Your task to perform on an android device: allow notifications from all sites in the chrome app Image 0: 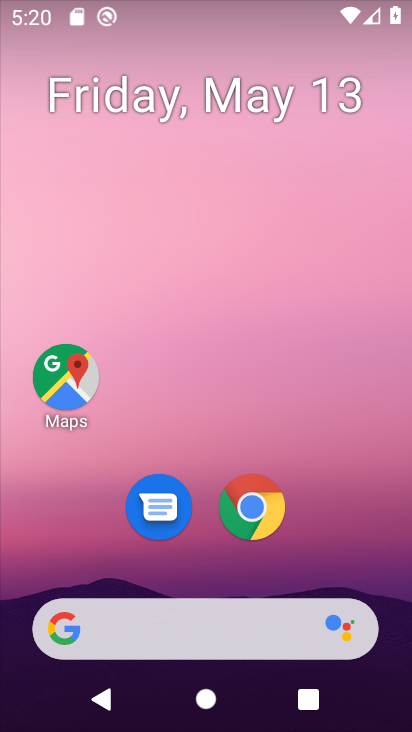
Step 0: drag from (327, 514) to (246, 61)
Your task to perform on an android device: allow notifications from all sites in the chrome app Image 1: 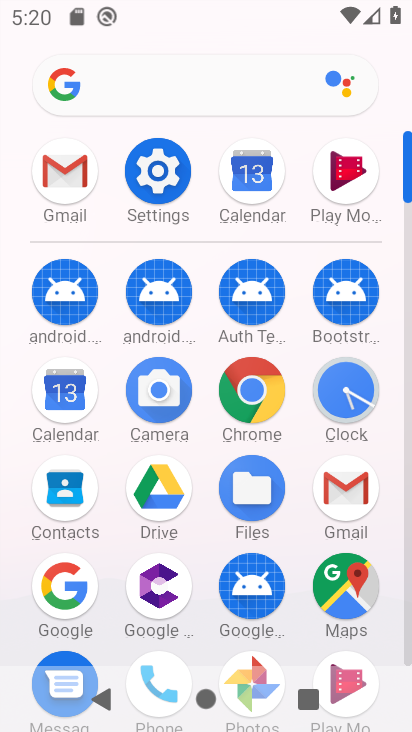
Step 1: click (253, 400)
Your task to perform on an android device: allow notifications from all sites in the chrome app Image 2: 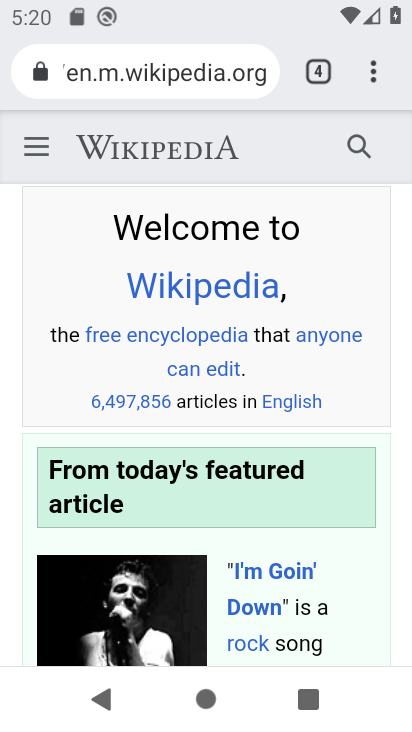
Step 2: click (371, 72)
Your task to perform on an android device: allow notifications from all sites in the chrome app Image 3: 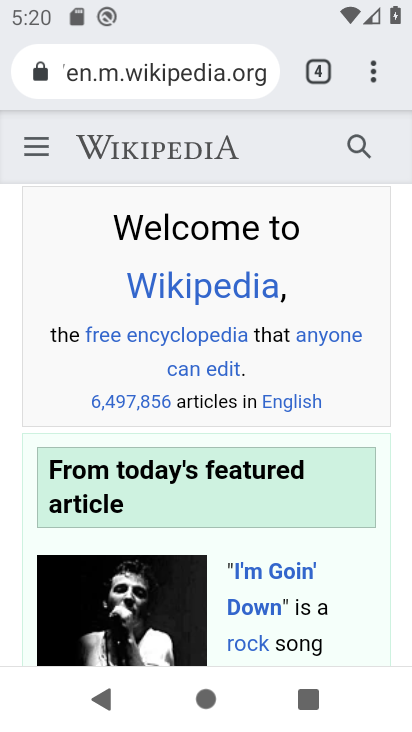
Step 3: click (376, 68)
Your task to perform on an android device: allow notifications from all sites in the chrome app Image 4: 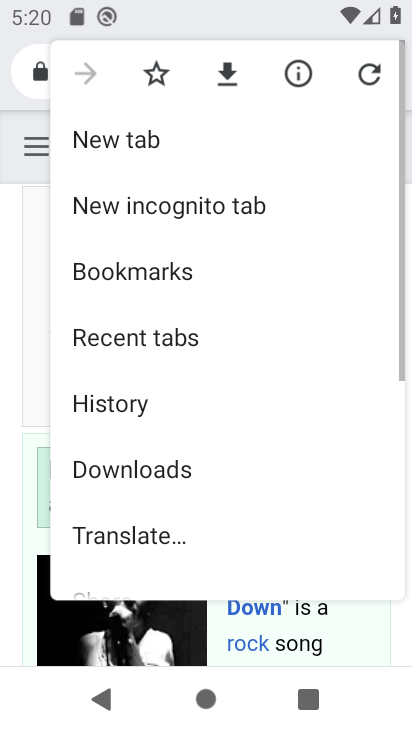
Step 4: drag from (239, 492) to (229, 73)
Your task to perform on an android device: allow notifications from all sites in the chrome app Image 5: 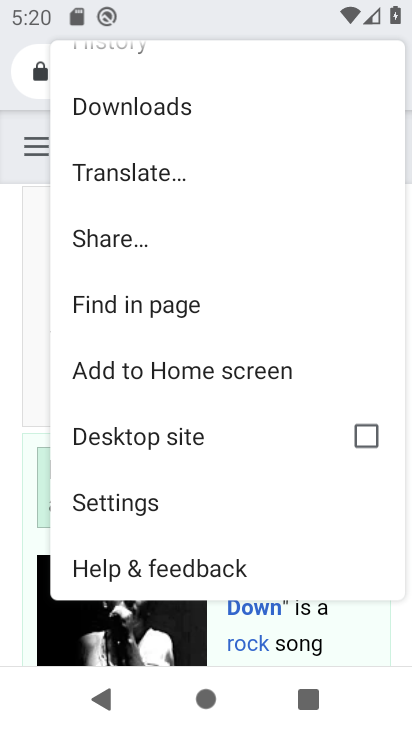
Step 5: click (154, 496)
Your task to perform on an android device: allow notifications from all sites in the chrome app Image 6: 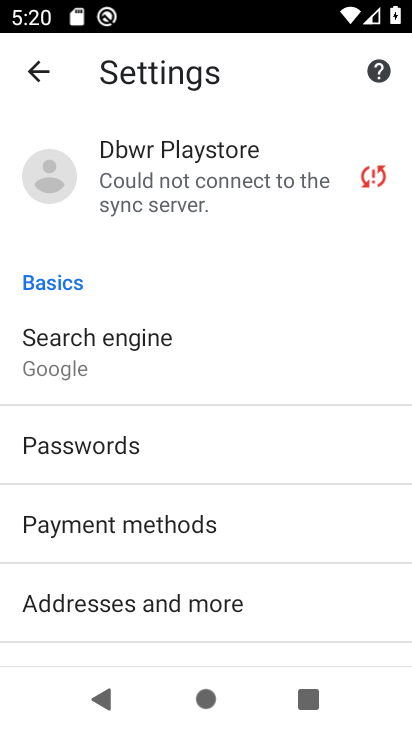
Step 6: drag from (196, 538) to (229, 153)
Your task to perform on an android device: allow notifications from all sites in the chrome app Image 7: 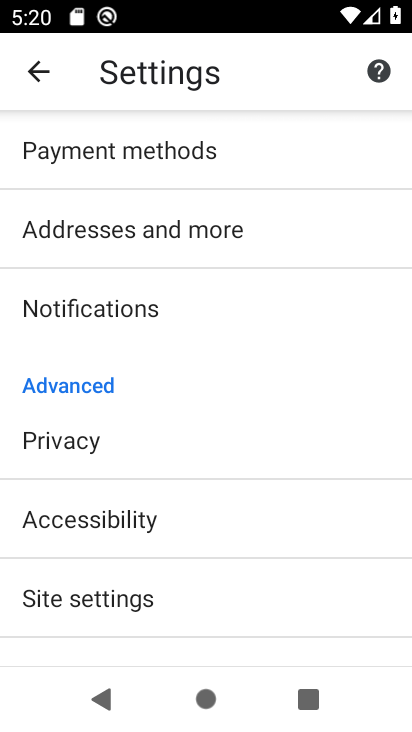
Step 7: click (143, 588)
Your task to perform on an android device: allow notifications from all sites in the chrome app Image 8: 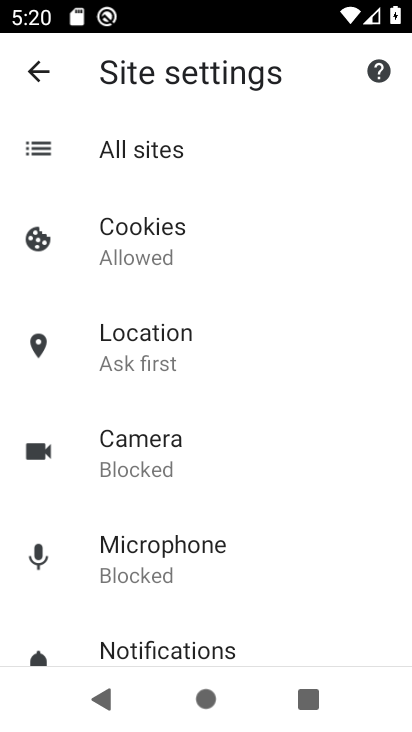
Step 8: click (193, 641)
Your task to perform on an android device: allow notifications from all sites in the chrome app Image 9: 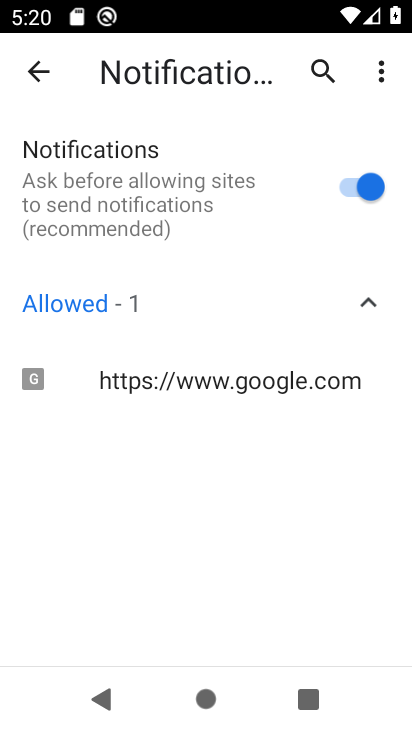
Step 9: task complete